Your task to perform on an android device: What's on my calendar today? Image 0: 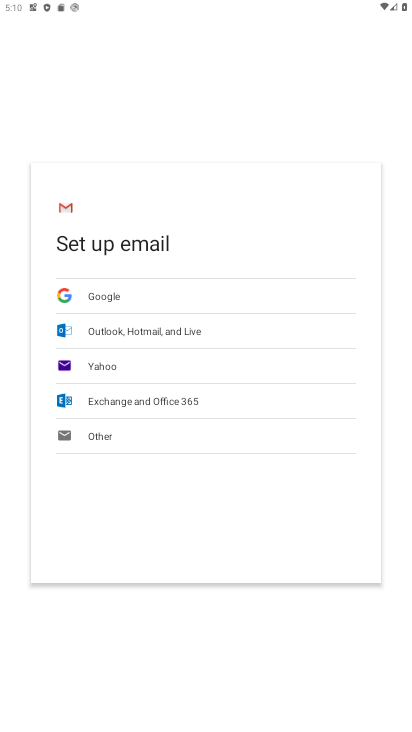
Step 0: press home button
Your task to perform on an android device: What's on my calendar today? Image 1: 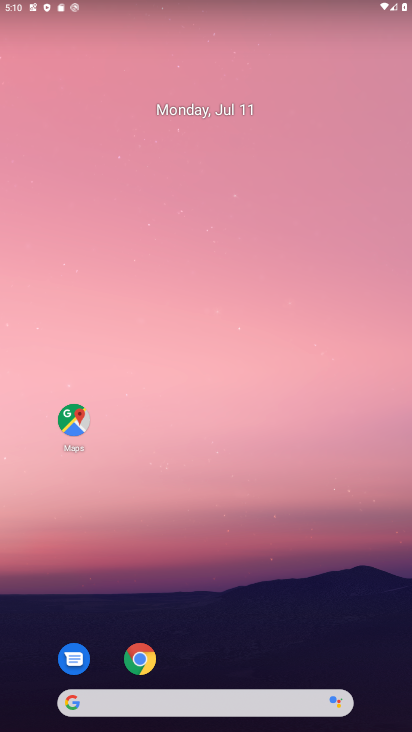
Step 1: drag from (371, 653) to (318, 68)
Your task to perform on an android device: What's on my calendar today? Image 2: 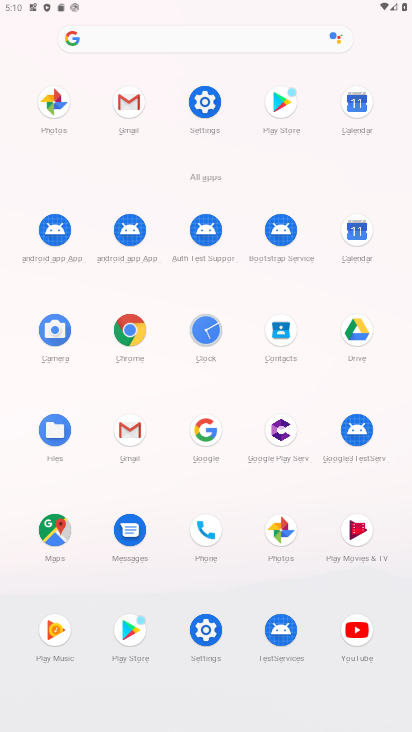
Step 2: click (355, 230)
Your task to perform on an android device: What's on my calendar today? Image 3: 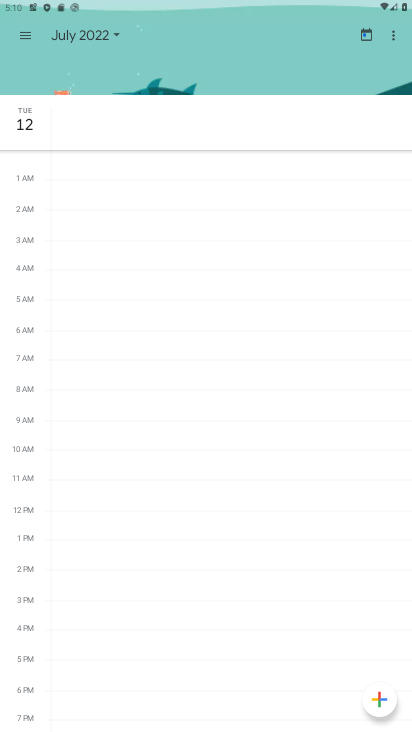
Step 3: click (28, 35)
Your task to perform on an android device: What's on my calendar today? Image 4: 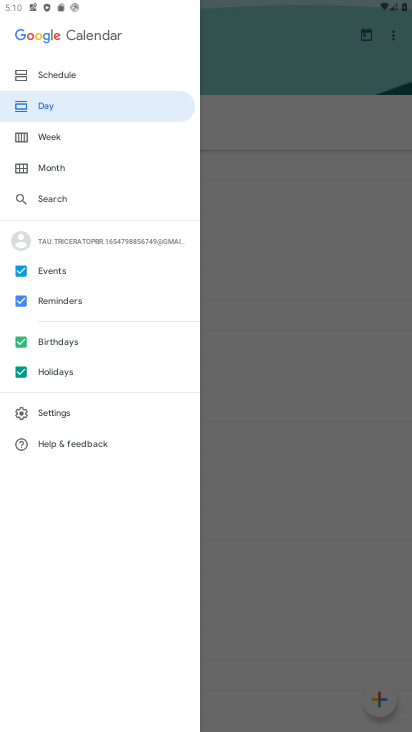
Step 4: click (62, 105)
Your task to perform on an android device: What's on my calendar today? Image 5: 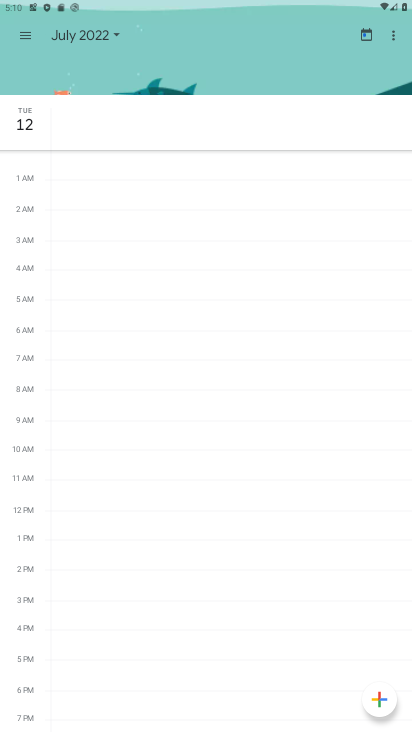
Step 5: click (114, 34)
Your task to perform on an android device: What's on my calendar today? Image 6: 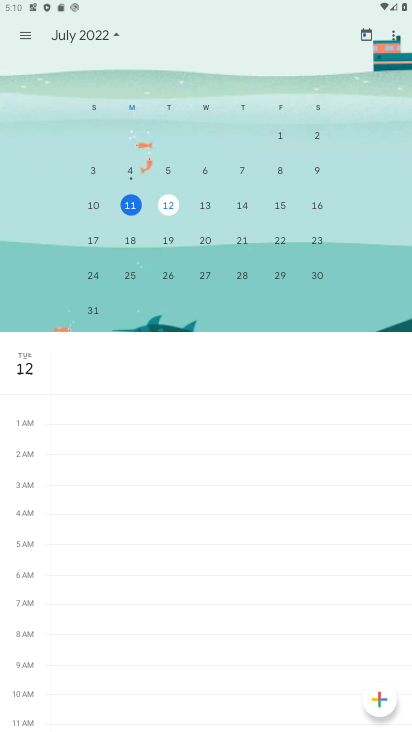
Step 6: click (129, 204)
Your task to perform on an android device: What's on my calendar today? Image 7: 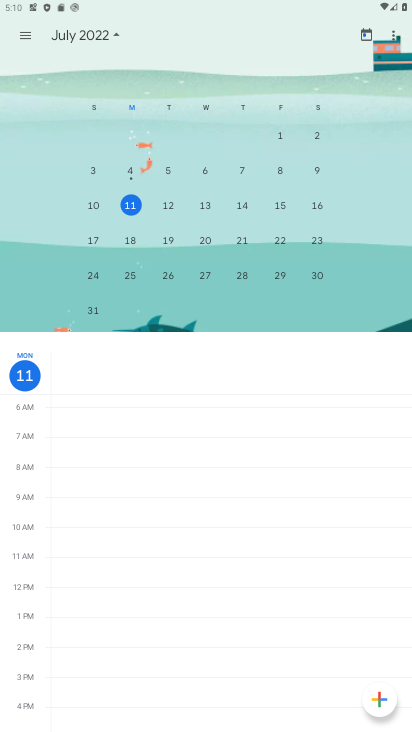
Step 7: task complete